Your task to perform on an android device: Show me popular videos on Youtube Image 0: 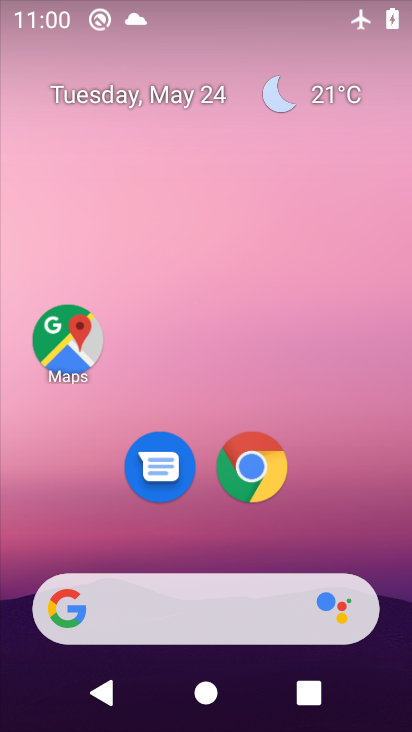
Step 0: drag from (193, 559) to (213, 87)
Your task to perform on an android device: Show me popular videos on Youtube Image 1: 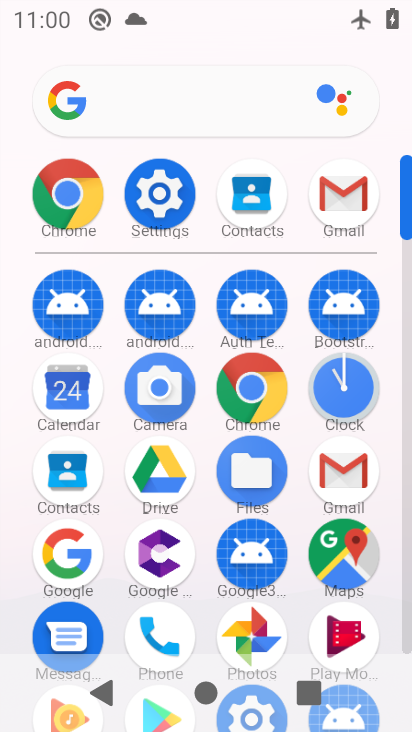
Step 1: drag from (199, 591) to (211, 258)
Your task to perform on an android device: Show me popular videos on Youtube Image 2: 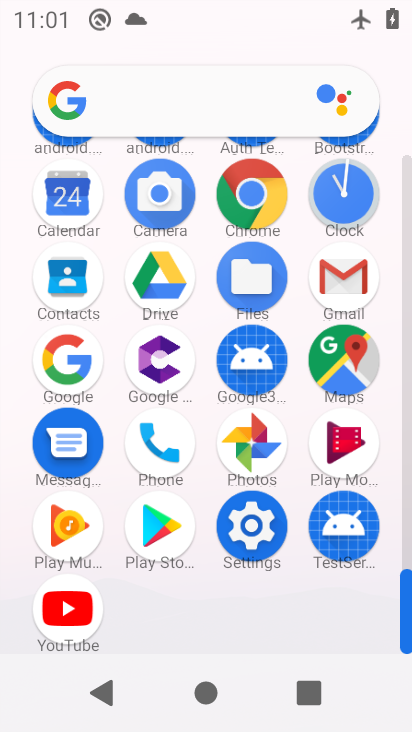
Step 2: click (65, 588)
Your task to perform on an android device: Show me popular videos on Youtube Image 3: 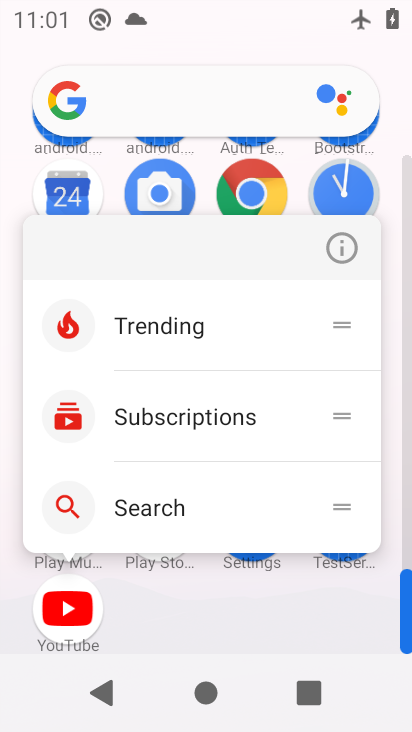
Step 3: click (346, 243)
Your task to perform on an android device: Show me popular videos on Youtube Image 4: 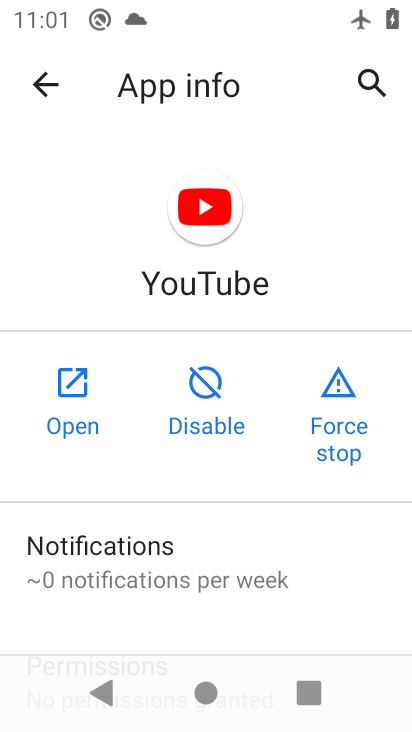
Step 4: click (64, 404)
Your task to perform on an android device: Show me popular videos on Youtube Image 5: 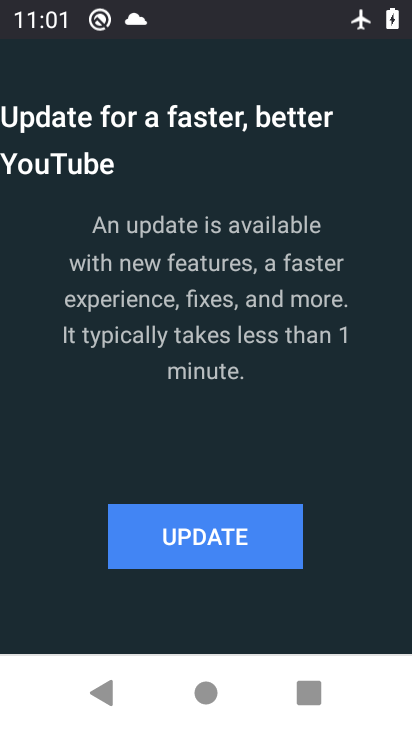
Step 5: click (186, 528)
Your task to perform on an android device: Show me popular videos on Youtube Image 6: 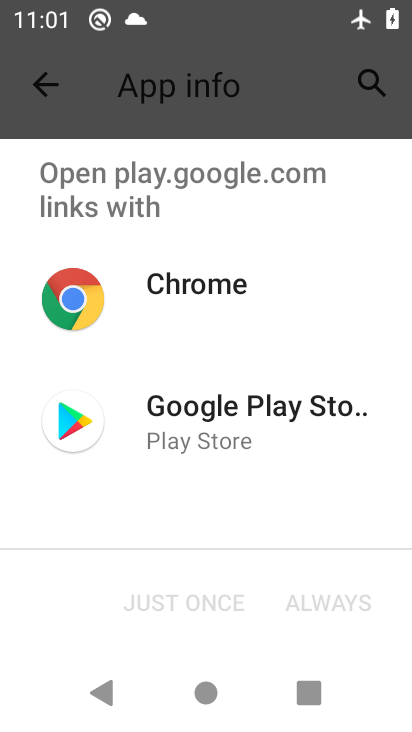
Step 6: click (192, 415)
Your task to perform on an android device: Show me popular videos on Youtube Image 7: 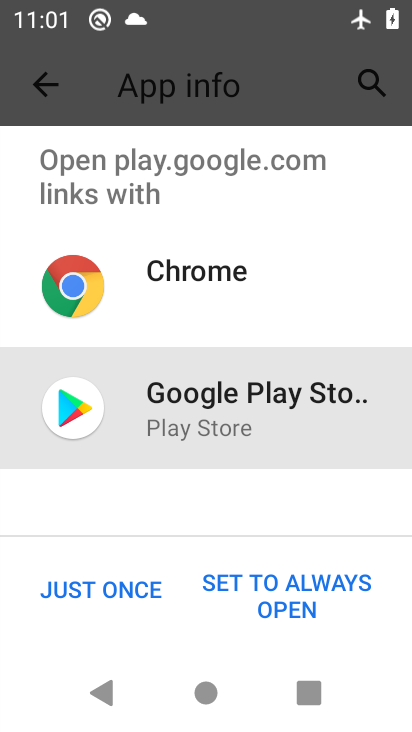
Step 7: click (88, 583)
Your task to perform on an android device: Show me popular videos on Youtube Image 8: 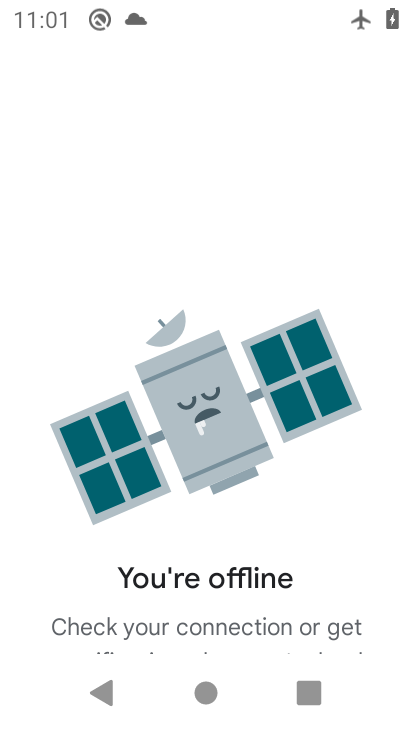
Step 8: task complete